Your task to perform on an android device: empty trash in the gmail app Image 0: 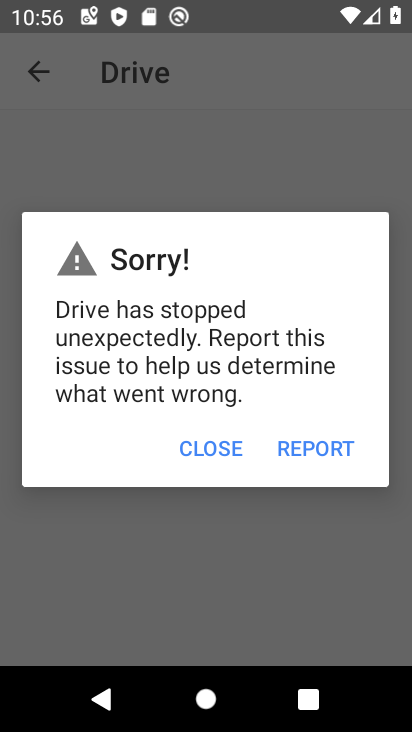
Step 0: press home button
Your task to perform on an android device: empty trash in the gmail app Image 1: 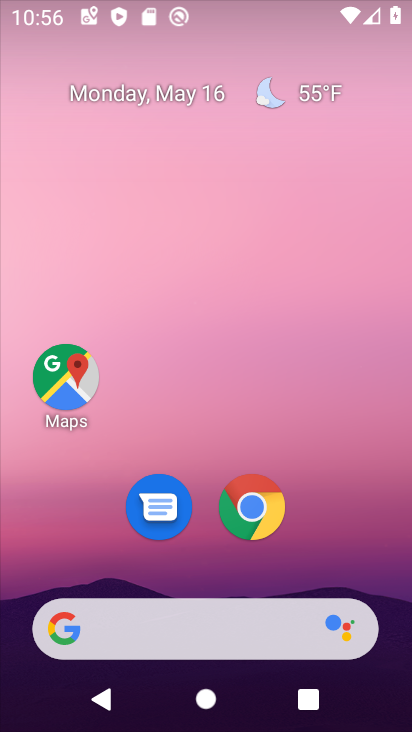
Step 1: drag from (331, 535) to (326, 161)
Your task to perform on an android device: empty trash in the gmail app Image 2: 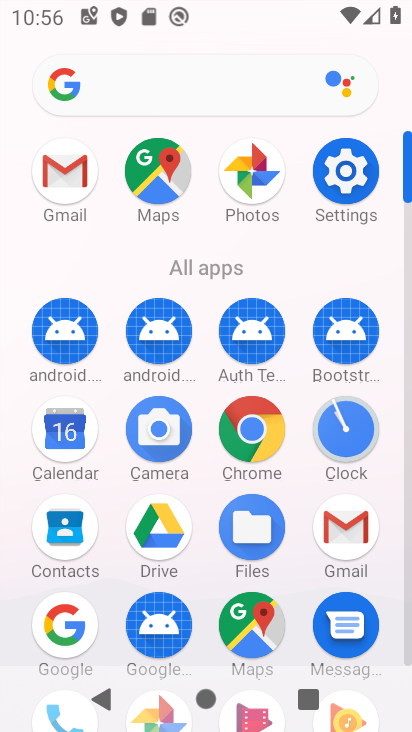
Step 2: click (330, 523)
Your task to perform on an android device: empty trash in the gmail app Image 3: 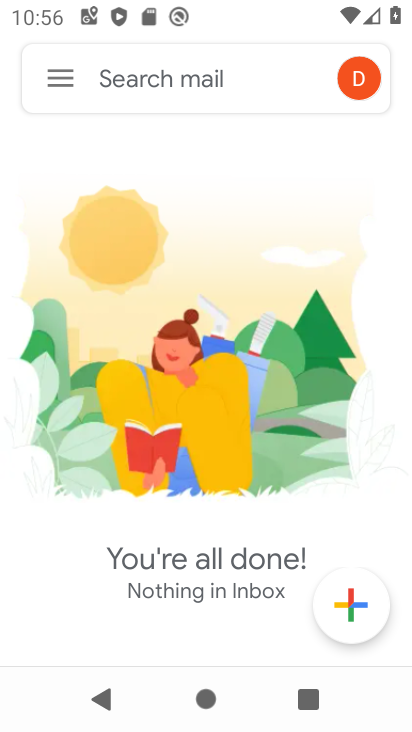
Step 3: click (57, 86)
Your task to perform on an android device: empty trash in the gmail app Image 4: 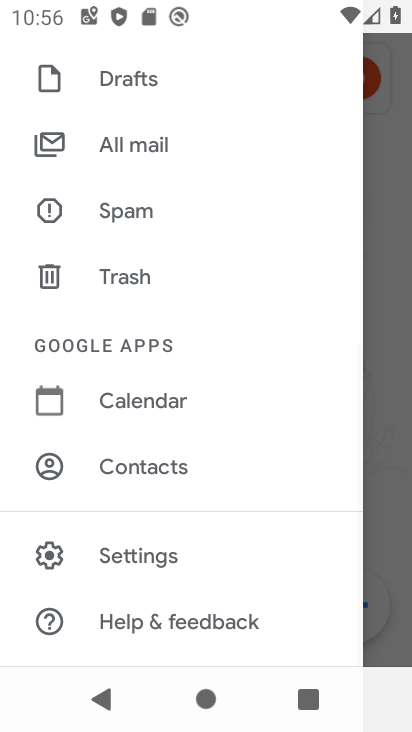
Step 4: click (153, 278)
Your task to perform on an android device: empty trash in the gmail app Image 5: 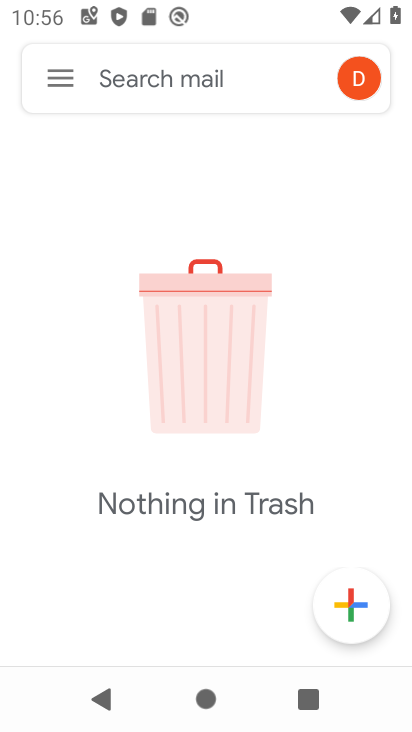
Step 5: task complete